Your task to perform on an android device: choose inbox layout in the gmail app Image 0: 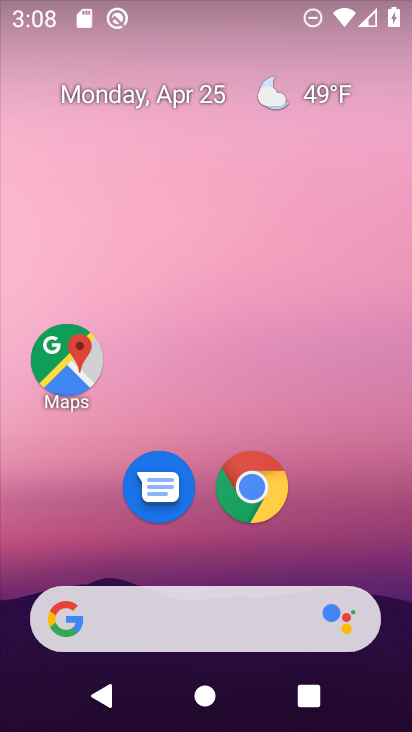
Step 0: drag from (386, 552) to (383, 40)
Your task to perform on an android device: choose inbox layout in the gmail app Image 1: 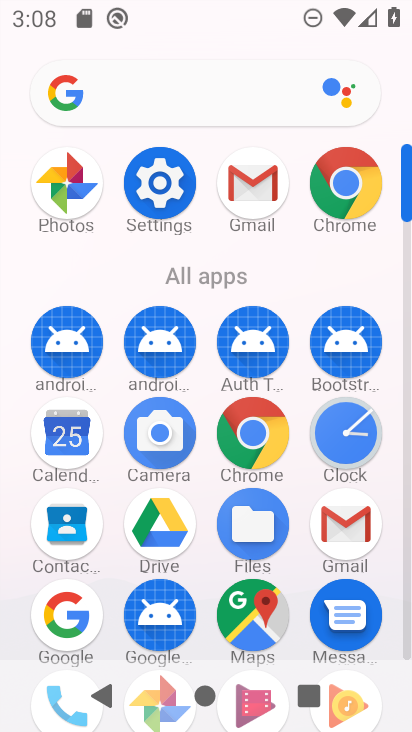
Step 1: click (247, 179)
Your task to perform on an android device: choose inbox layout in the gmail app Image 2: 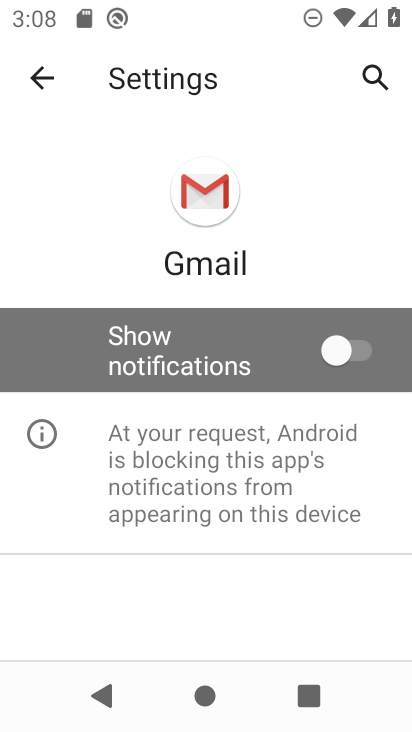
Step 2: click (37, 77)
Your task to perform on an android device: choose inbox layout in the gmail app Image 3: 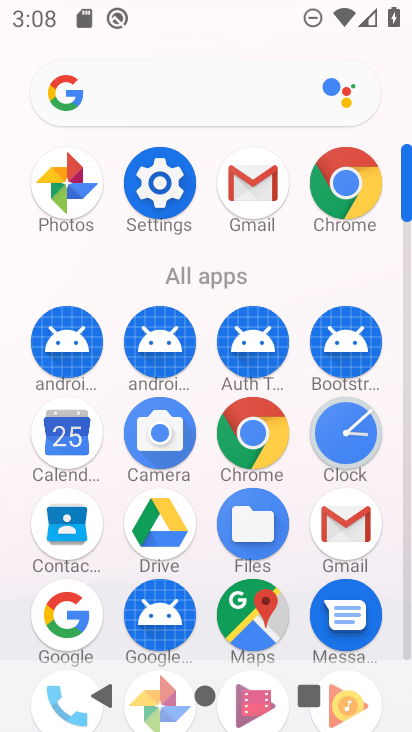
Step 3: click (228, 192)
Your task to perform on an android device: choose inbox layout in the gmail app Image 4: 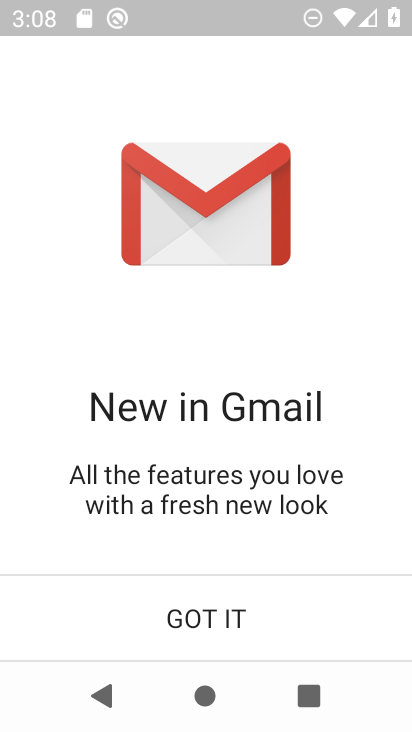
Step 4: click (197, 627)
Your task to perform on an android device: choose inbox layout in the gmail app Image 5: 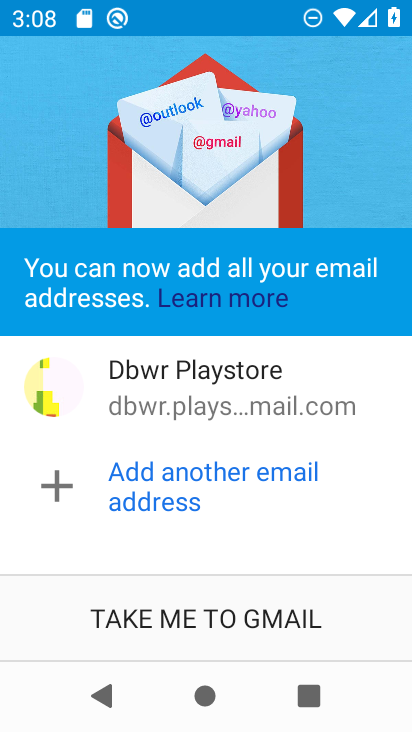
Step 5: click (183, 617)
Your task to perform on an android device: choose inbox layout in the gmail app Image 6: 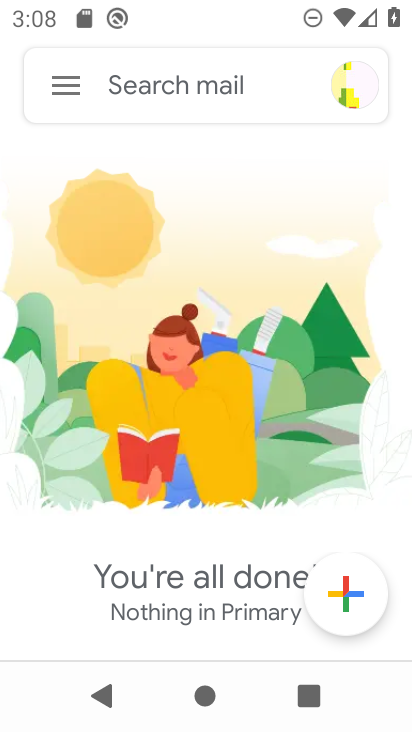
Step 6: click (66, 85)
Your task to perform on an android device: choose inbox layout in the gmail app Image 7: 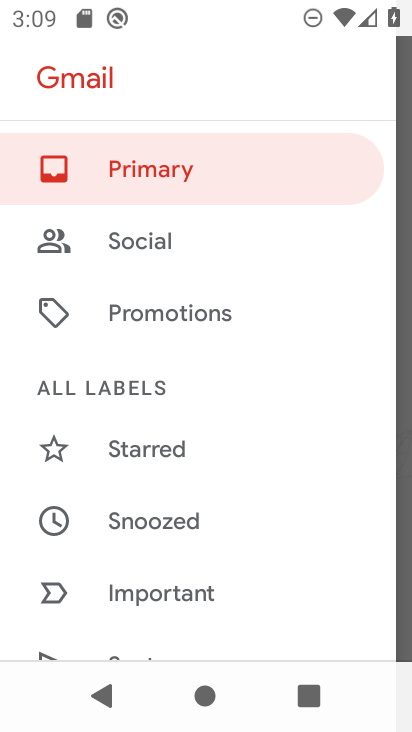
Step 7: drag from (252, 507) to (217, 147)
Your task to perform on an android device: choose inbox layout in the gmail app Image 8: 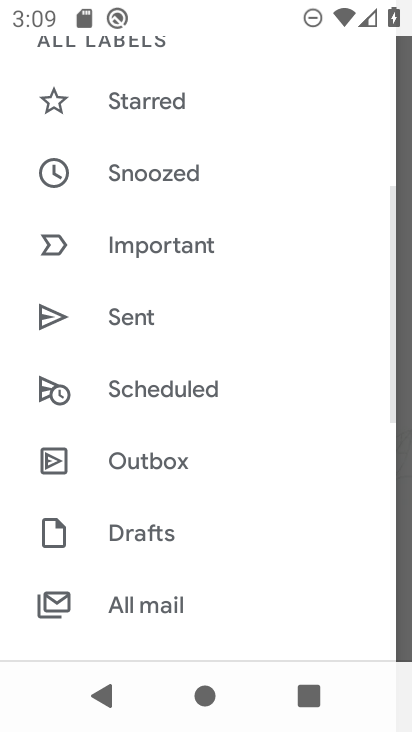
Step 8: drag from (229, 479) to (197, 112)
Your task to perform on an android device: choose inbox layout in the gmail app Image 9: 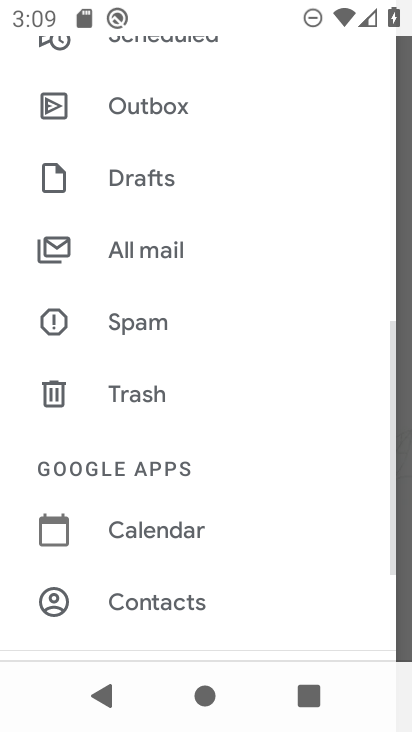
Step 9: drag from (180, 519) to (172, 89)
Your task to perform on an android device: choose inbox layout in the gmail app Image 10: 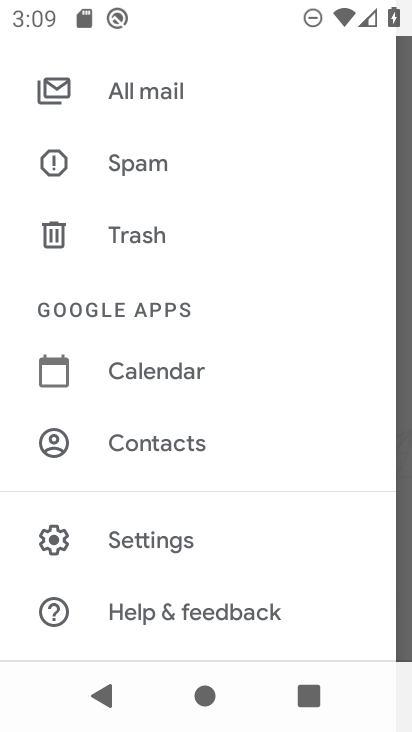
Step 10: click (63, 546)
Your task to perform on an android device: choose inbox layout in the gmail app Image 11: 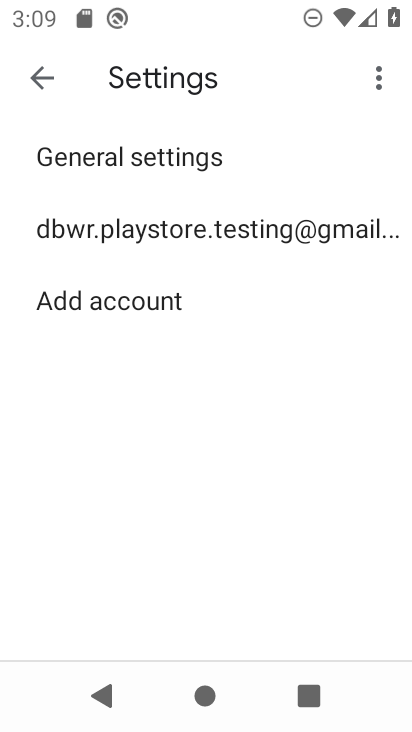
Step 11: click (132, 234)
Your task to perform on an android device: choose inbox layout in the gmail app Image 12: 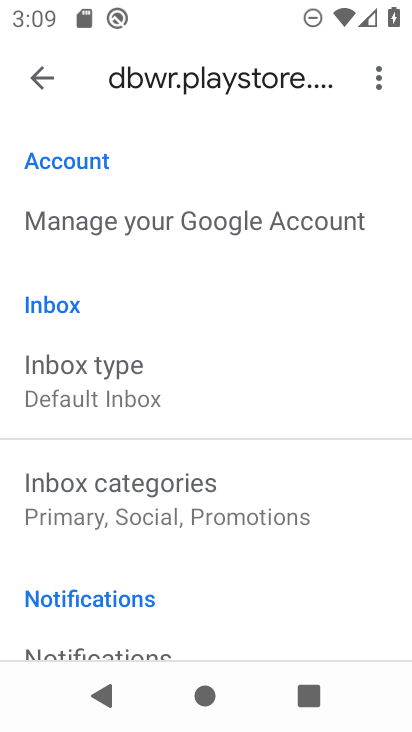
Step 12: click (101, 392)
Your task to perform on an android device: choose inbox layout in the gmail app Image 13: 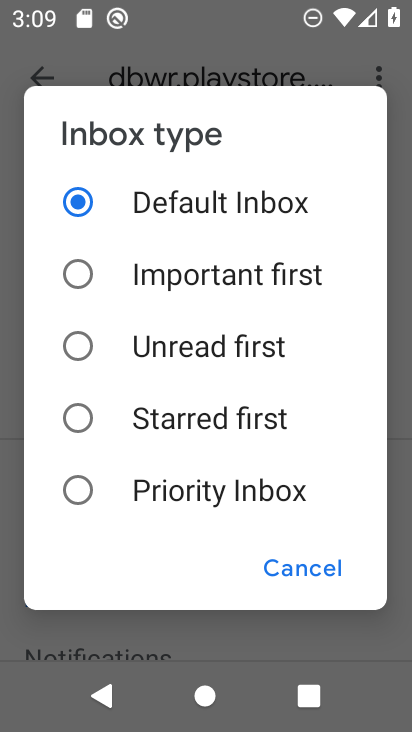
Step 13: click (82, 415)
Your task to perform on an android device: choose inbox layout in the gmail app Image 14: 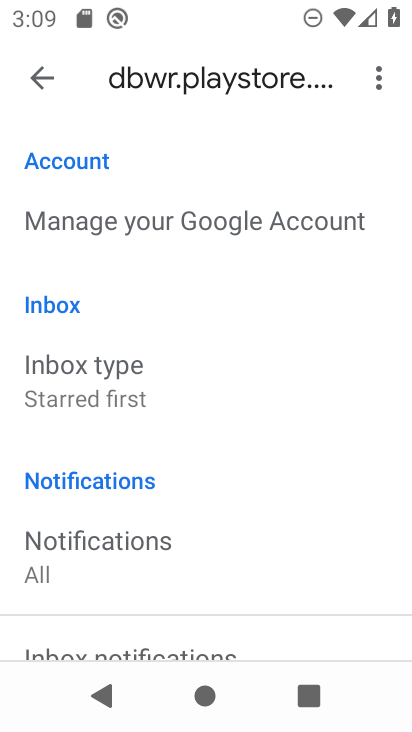
Step 14: task complete